Your task to perform on an android device: Open Google Chrome and click the shortcut for Amazon.com Image 0: 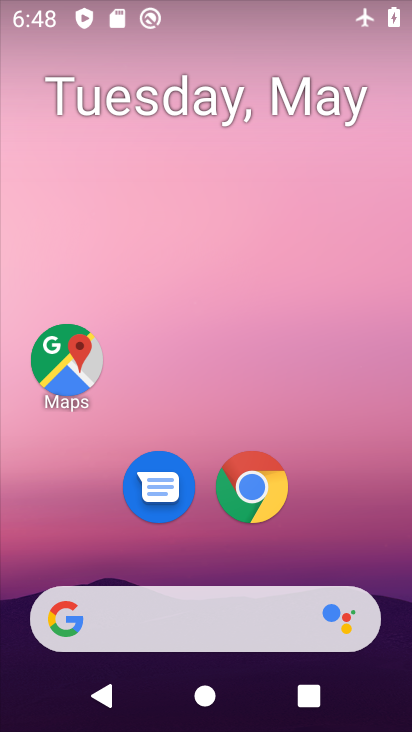
Step 0: click (250, 489)
Your task to perform on an android device: Open Google Chrome and click the shortcut for Amazon.com Image 1: 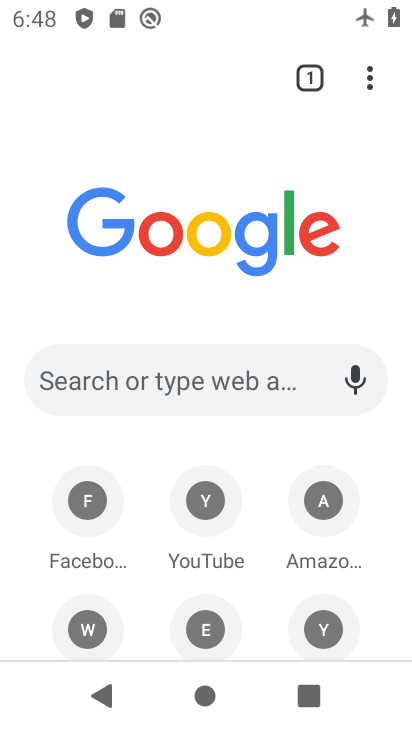
Step 1: click (311, 485)
Your task to perform on an android device: Open Google Chrome and click the shortcut for Amazon.com Image 2: 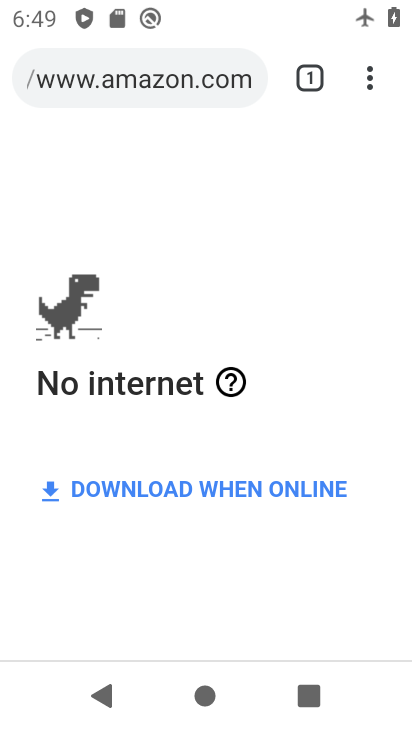
Step 2: task complete